Your task to perform on an android device: When is my next meeting? Image 0: 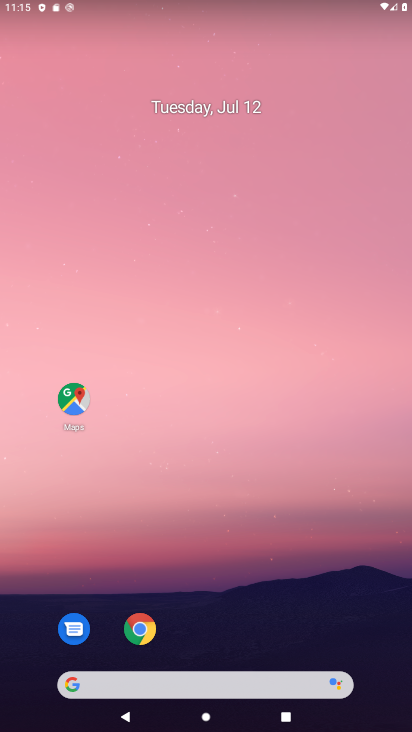
Step 0: drag from (221, 599) to (161, 112)
Your task to perform on an android device: When is my next meeting? Image 1: 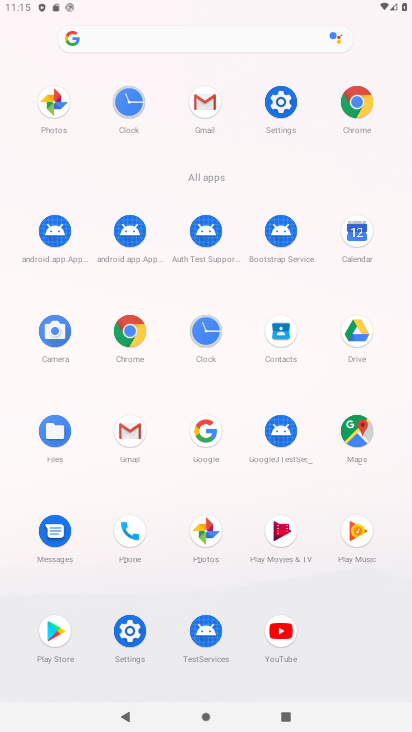
Step 1: click (352, 235)
Your task to perform on an android device: When is my next meeting? Image 2: 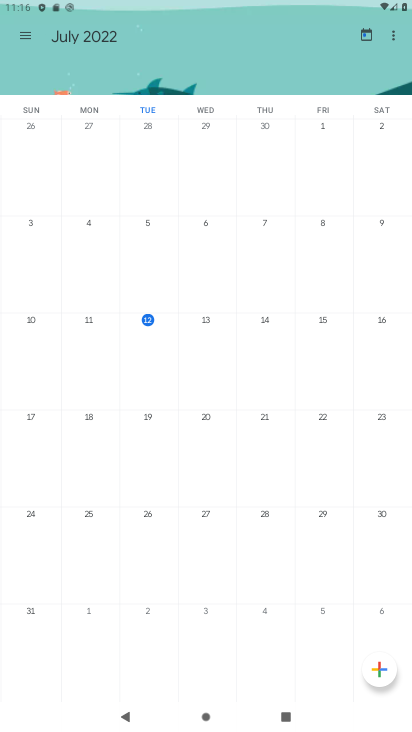
Step 2: click (148, 318)
Your task to perform on an android device: When is my next meeting? Image 3: 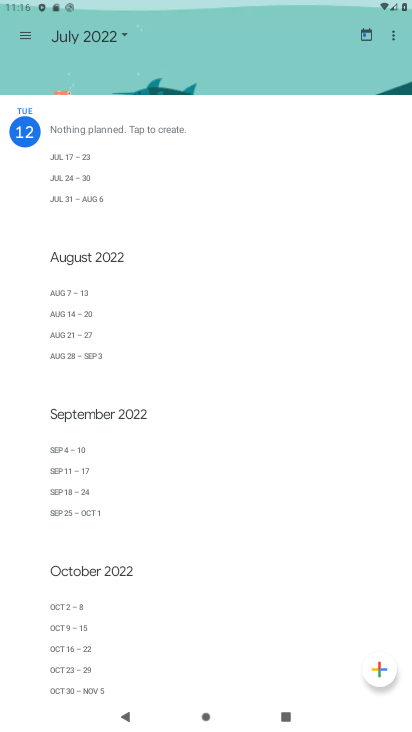
Step 3: task complete